Your task to perform on an android device: Open settings Image 0: 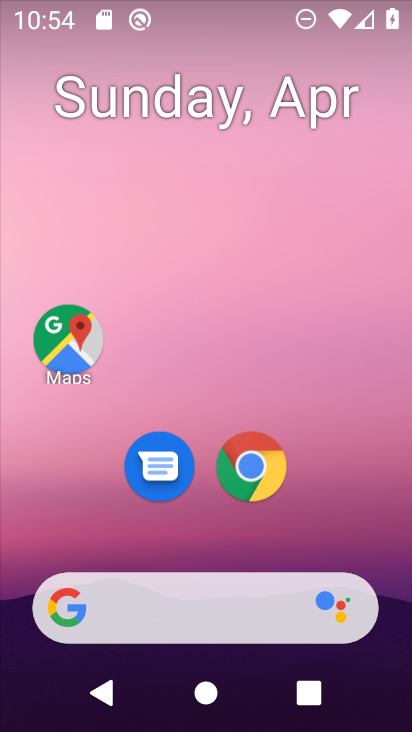
Step 0: drag from (353, 523) to (331, 88)
Your task to perform on an android device: Open settings Image 1: 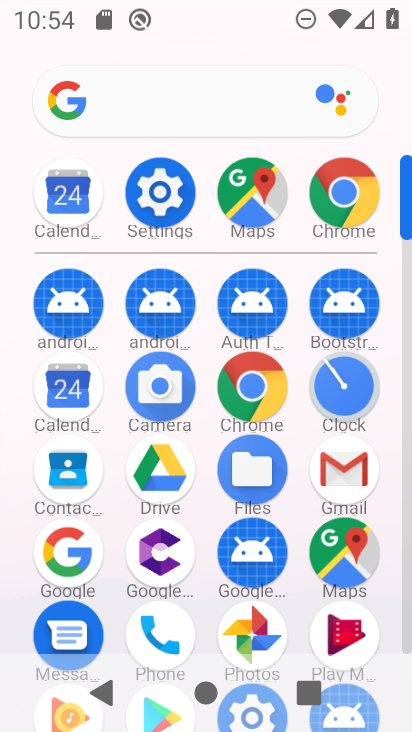
Step 1: click (148, 204)
Your task to perform on an android device: Open settings Image 2: 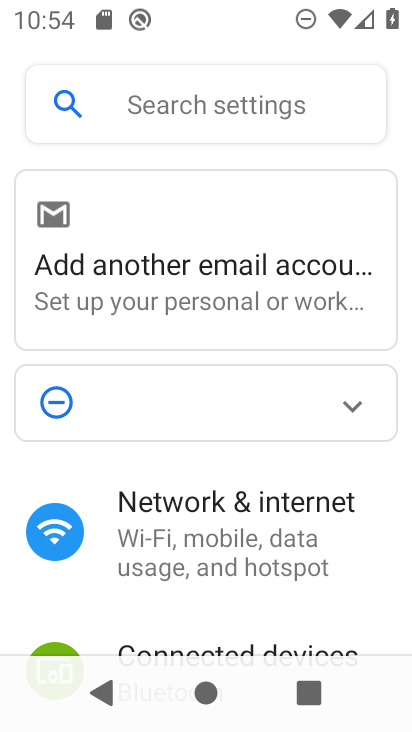
Step 2: task complete